Your task to perform on an android device: open wifi settings Image 0: 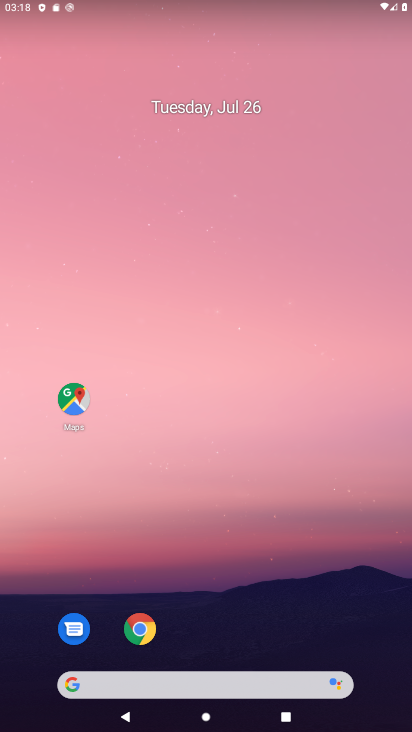
Step 0: drag from (150, 6) to (156, 500)
Your task to perform on an android device: open wifi settings Image 1: 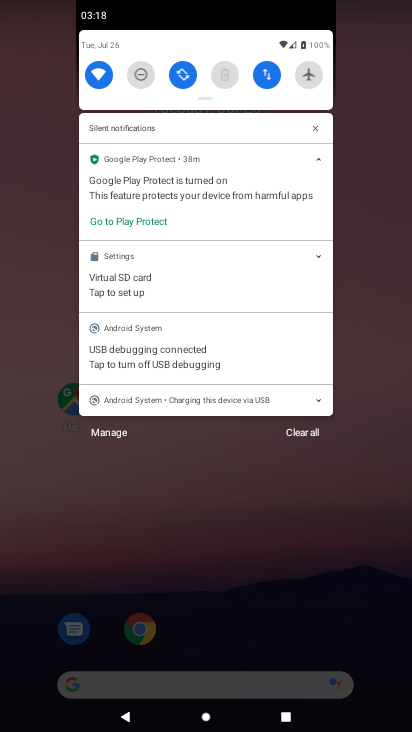
Step 1: click (106, 72)
Your task to perform on an android device: open wifi settings Image 2: 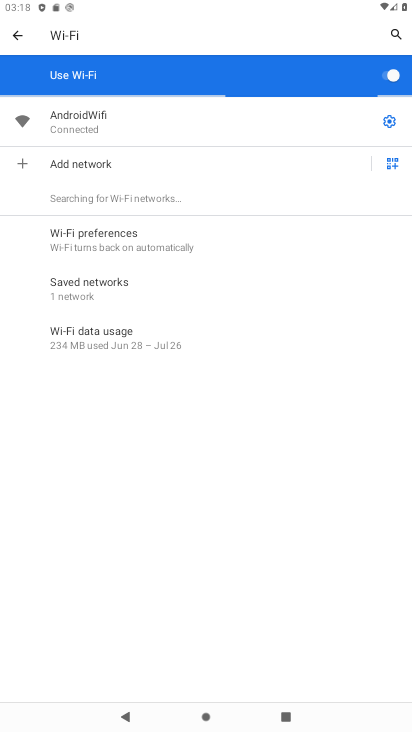
Step 2: task complete